Your task to perform on an android device: Open Google Maps and go to "Timeline" Image 0: 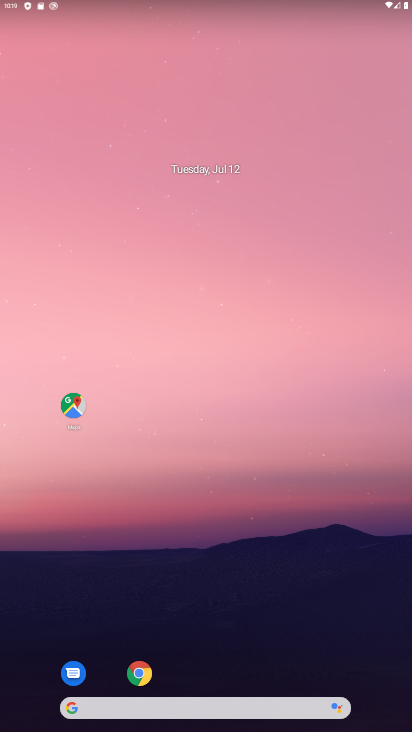
Step 0: drag from (267, 596) to (271, 179)
Your task to perform on an android device: Open Google Maps and go to "Timeline" Image 1: 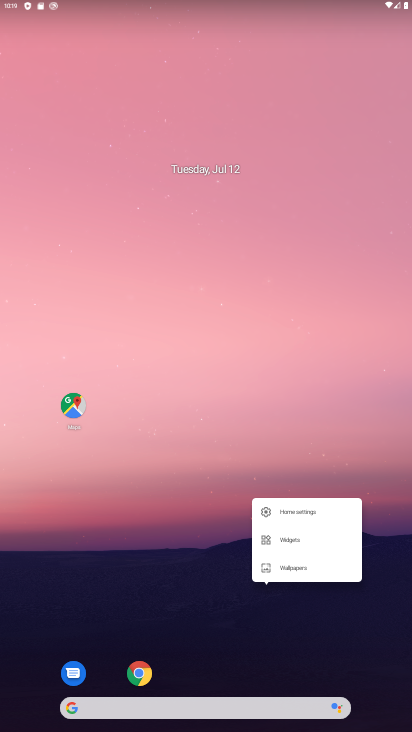
Step 1: click (237, 337)
Your task to perform on an android device: Open Google Maps and go to "Timeline" Image 2: 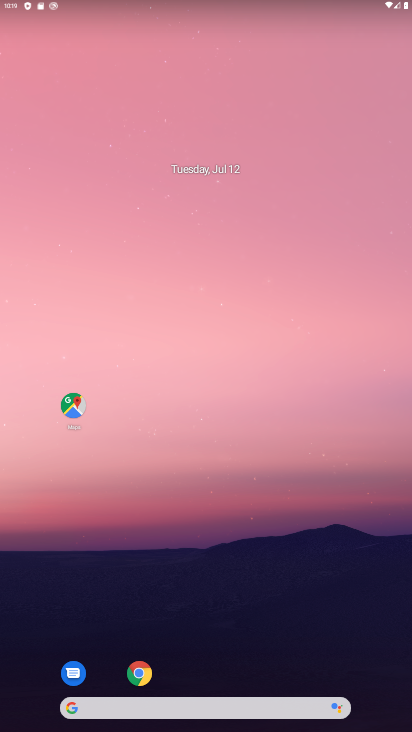
Step 2: drag from (223, 574) to (239, 114)
Your task to perform on an android device: Open Google Maps and go to "Timeline" Image 3: 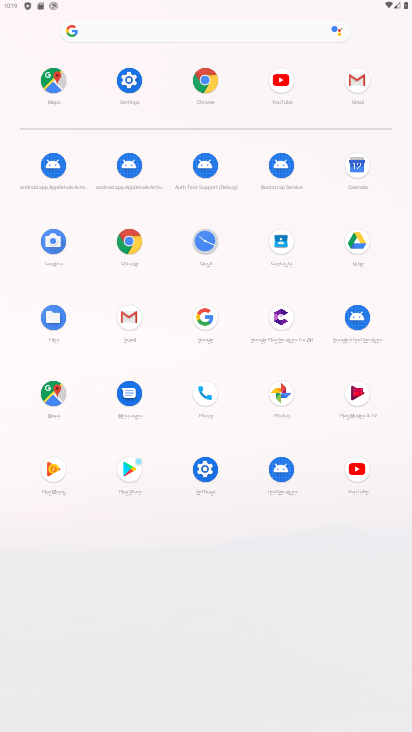
Step 3: click (50, 79)
Your task to perform on an android device: Open Google Maps and go to "Timeline" Image 4: 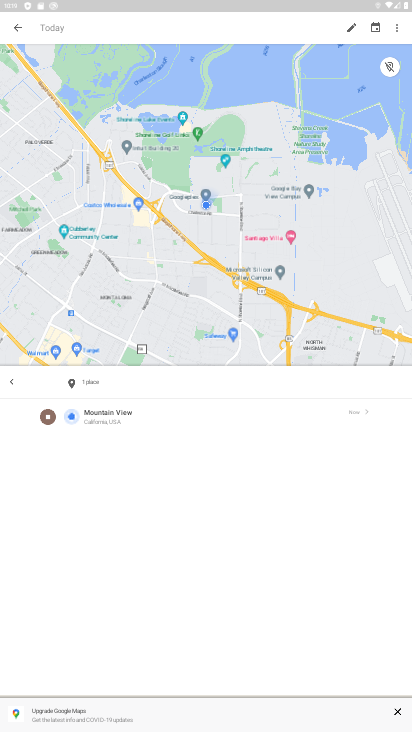
Step 4: task complete